Your task to perform on an android device: change the clock style Image 0: 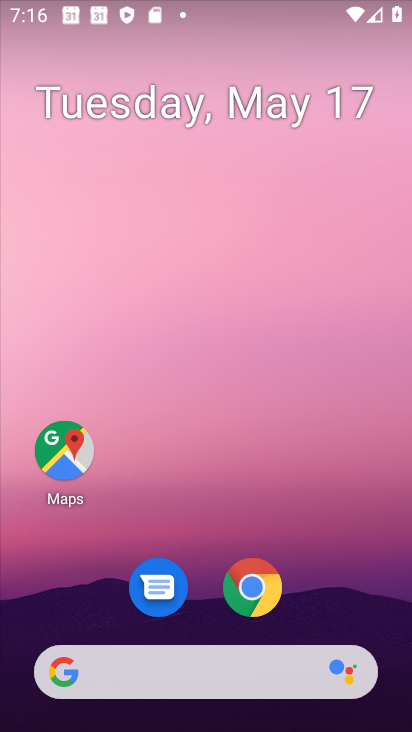
Step 0: drag from (255, 690) to (204, 254)
Your task to perform on an android device: change the clock style Image 1: 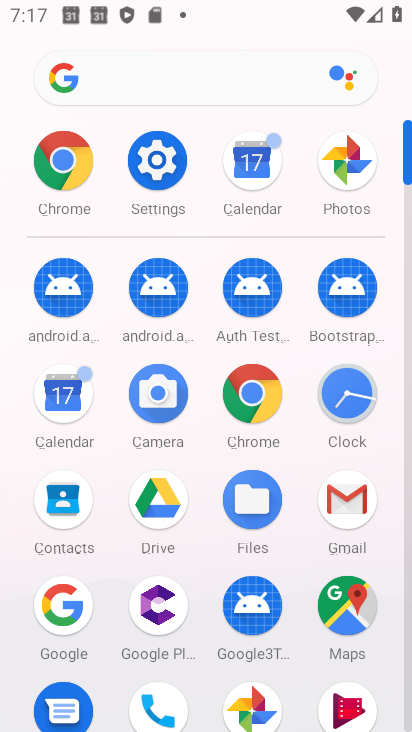
Step 1: click (325, 406)
Your task to perform on an android device: change the clock style Image 2: 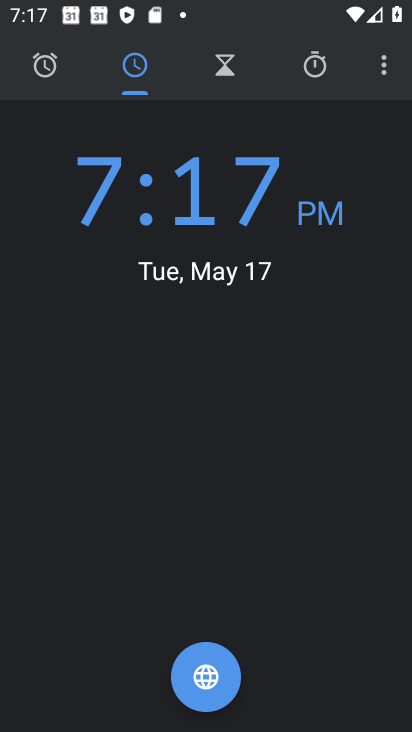
Step 2: click (377, 80)
Your task to perform on an android device: change the clock style Image 3: 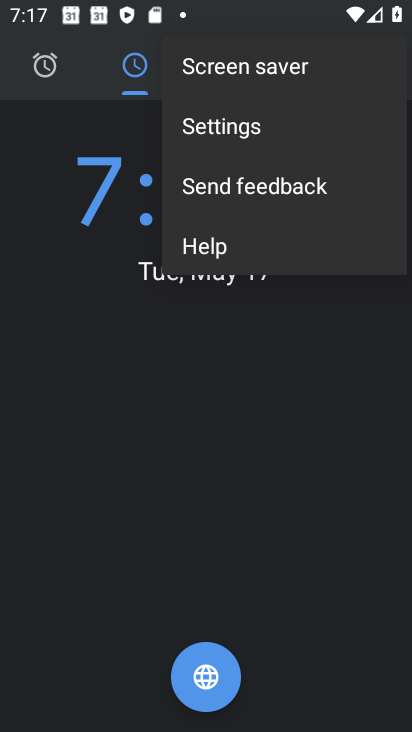
Step 3: click (267, 121)
Your task to perform on an android device: change the clock style Image 4: 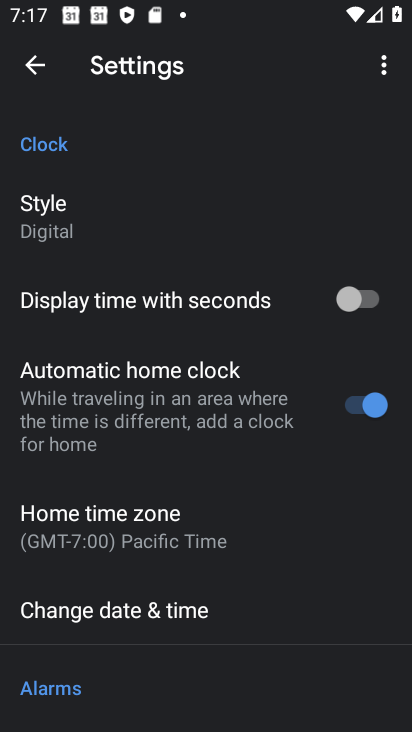
Step 4: click (69, 224)
Your task to perform on an android device: change the clock style Image 5: 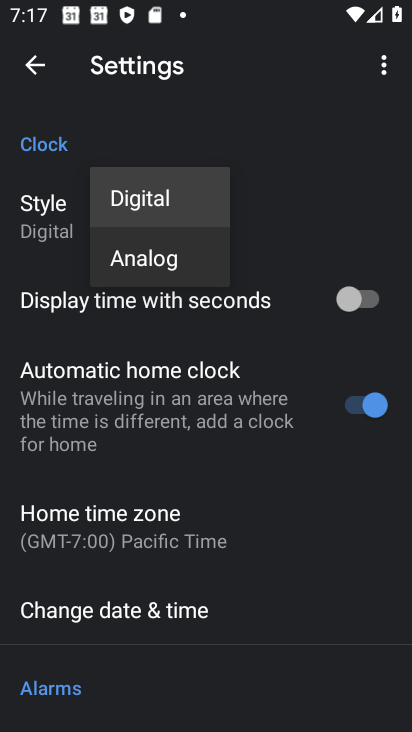
Step 5: click (156, 265)
Your task to perform on an android device: change the clock style Image 6: 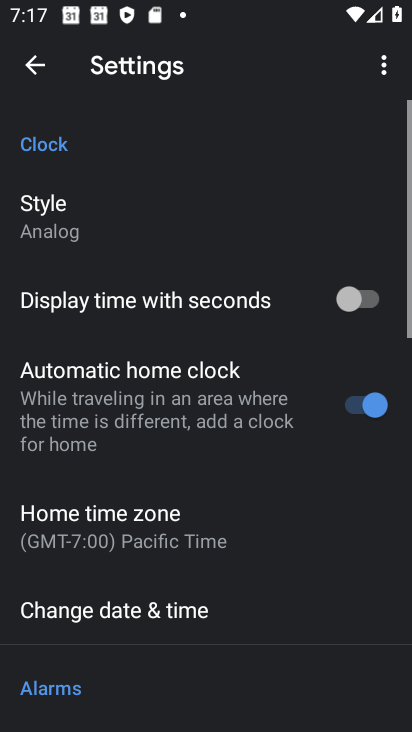
Step 6: task complete